Your task to perform on an android device: Open internet settings Image 0: 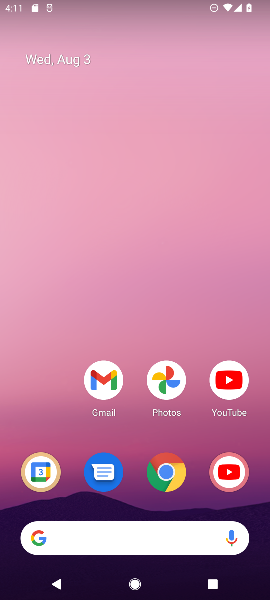
Step 0: drag from (252, 511) to (123, 42)
Your task to perform on an android device: Open internet settings Image 1: 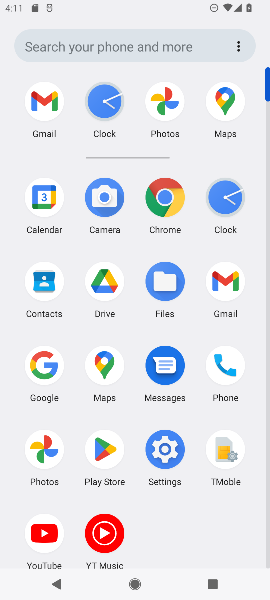
Step 1: click (162, 455)
Your task to perform on an android device: Open internet settings Image 2: 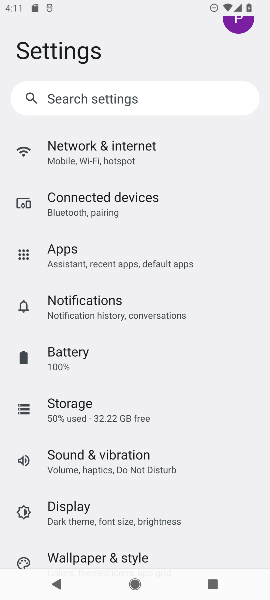
Step 2: click (80, 158)
Your task to perform on an android device: Open internet settings Image 3: 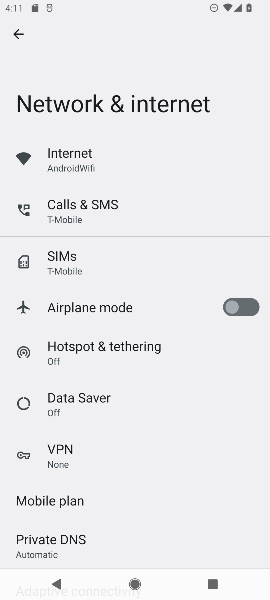
Step 3: click (80, 157)
Your task to perform on an android device: Open internet settings Image 4: 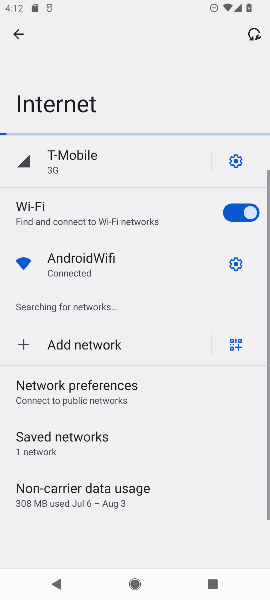
Step 4: task complete